Your task to perform on an android device: Open Google Chrome and click the shortcut for Amazon.com Image 0: 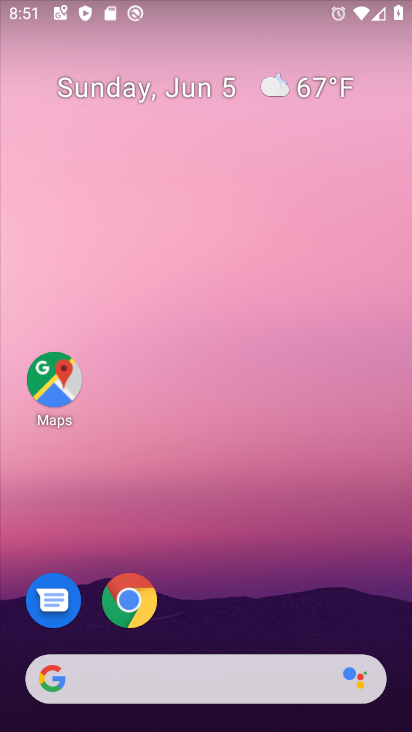
Step 0: drag from (393, 644) to (347, 142)
Your task to perform on an android device: Open Google Chrome and click the shortcut for Amazon.com Image 1: 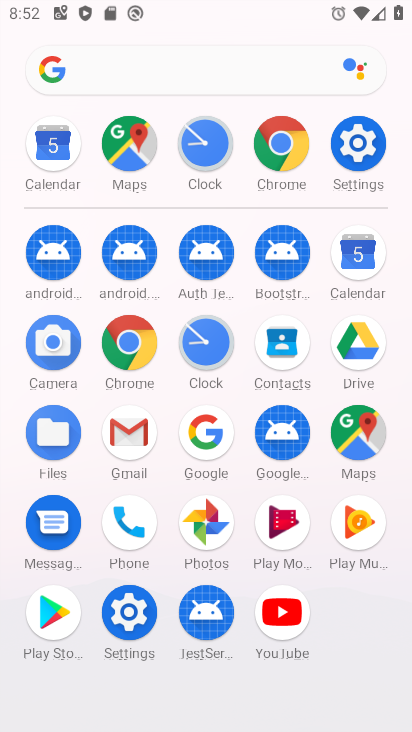
Step 1: click (125, 338)
Your task to perform on an android device: Open Google Chrome and click the shortcut for Amazon.com Image 2: 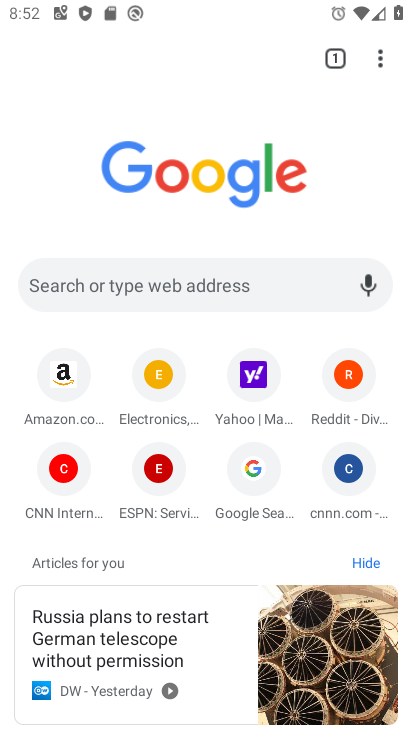
Step 2: click (47, 381)
Your task to perform on an android device: Open Google Chrome and click the shortcut for Amazon.com Image 3: 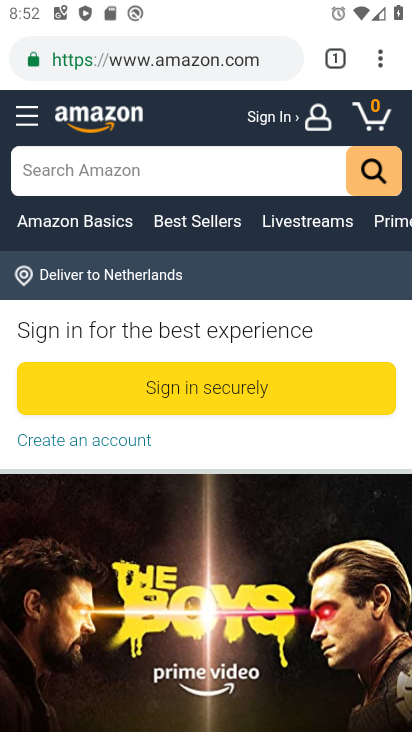
Step 3: task complete